Your task to perform on an android device: open app "LiveIn - Share Your Moment" Image 0: 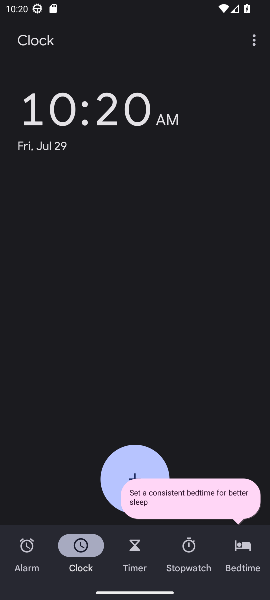
Step 0: press home button
Your task to perform on an android device: open app "LiveIn - Share Your Moment" Image 1: 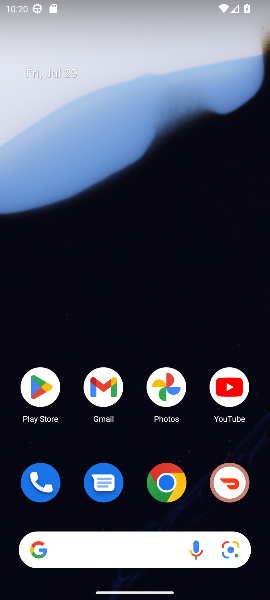
Step 1: click (46, 398)
Your task to perform on an android device: open app "LiveIn - Share Your Moment" Image 2: 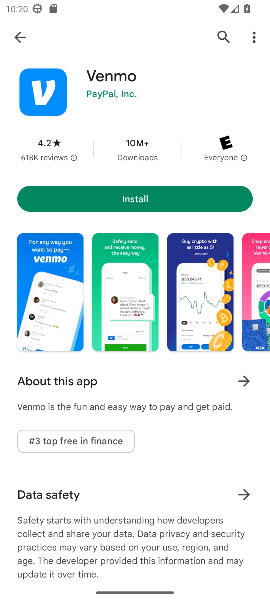
Step 2: click (220, 38)
Your task to perform on an android device: open app "LiveIn - Share Your Moment" Image 3: 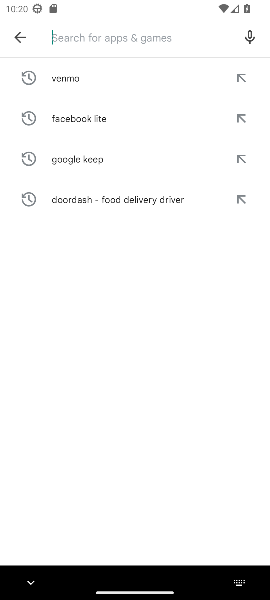
Step 3: type "LiveIn - Share Your Moment"
Your task to perform on an android device: open app "LiveIn - Share Your Moment" Image 4: 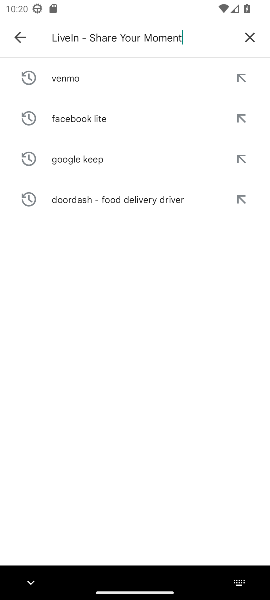
Step 4: type ""
Your task to perform on an android device: open app "LiveIn - Share Your Moment" Image 5: 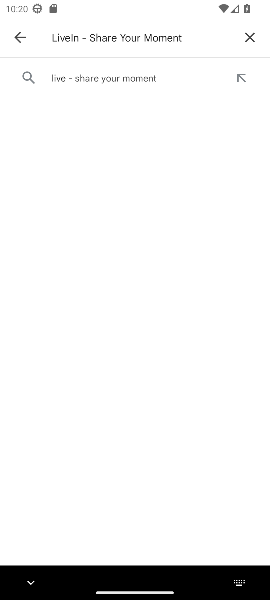
Step 5: click (133, 78)
Your task to perform on an android device: open app "LiveIn - Share Your Moment" Image 6: 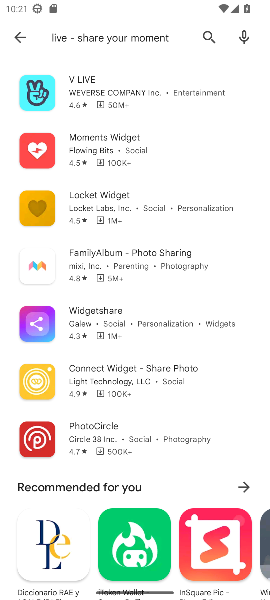
Step 6: task complete